Your task to perform on an android device: Is it going to rain tomorrow? Image 0: 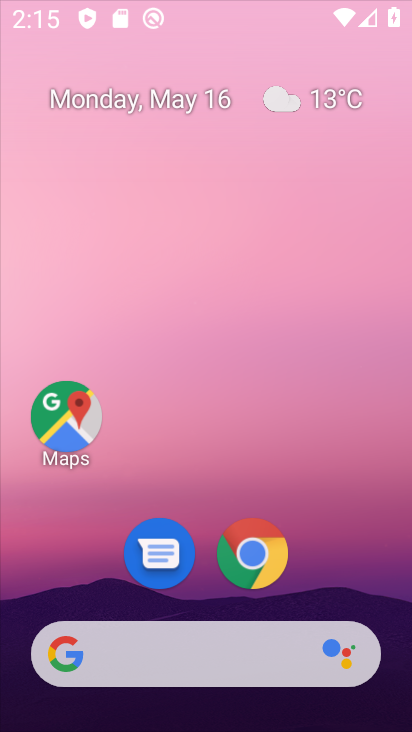
Step 0: drag from (203, 598) to (122, 5)
Your task to perform on an android device: Is it going to rain tomorrow? Image 1: 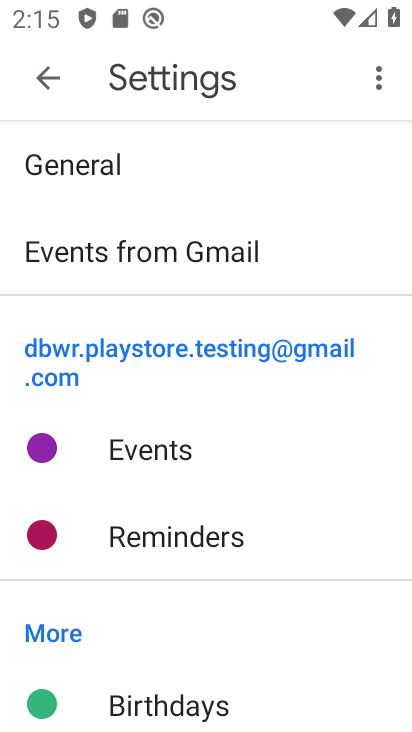
Step 1: press home button
Your task to perform on an android device: Is it going to rain tomorrow? Image 2: 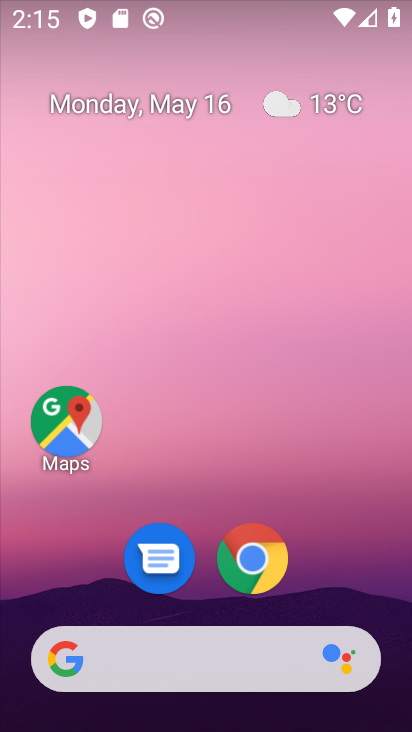
Step 2: click (271, 647)
Your task to perform on an android device: Is it going to rain tomorrow? Image 3: 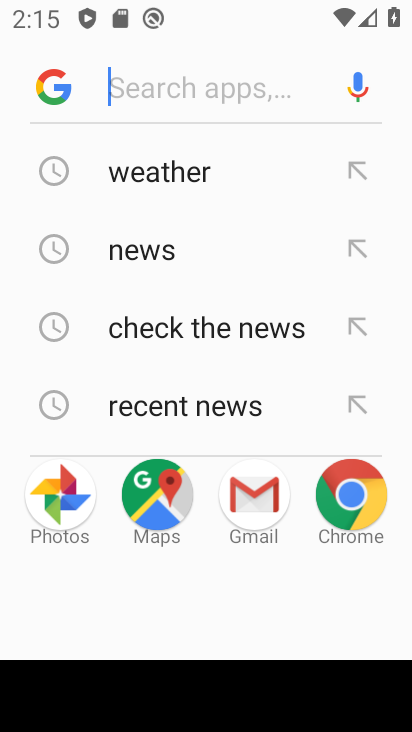
Step 3: click (153, 202)
Your task to perform on an android device: Is it going to rain tomorrow? Image 4: 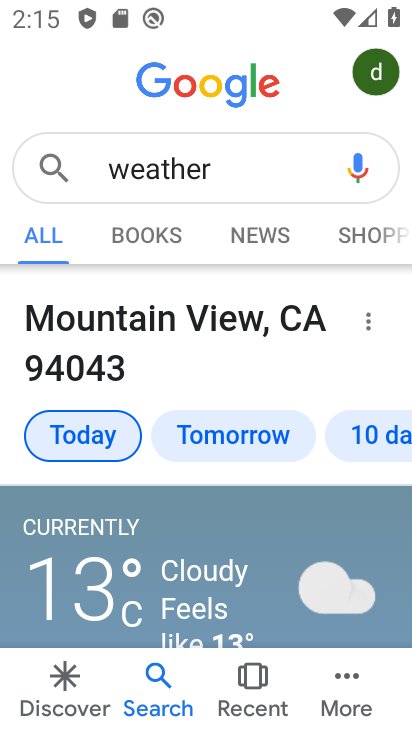
Step 4: click (189, 420)
Your task to perform on an android device: Is it going to rain tomorrow? Image 5: 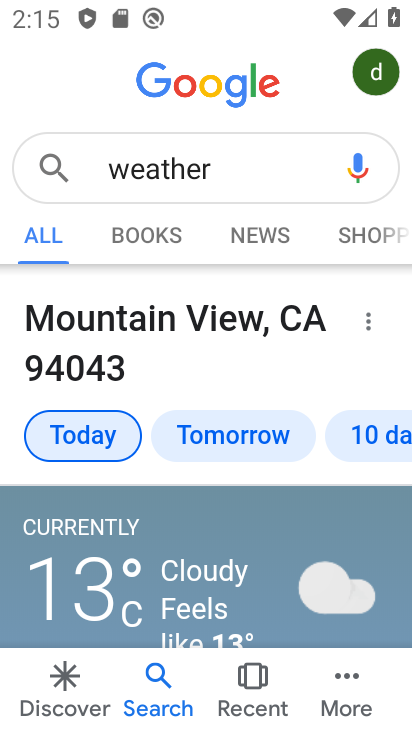
Step 5: click (214, 426)
Your task to perform on an android device: Is it going to rain tomorrow? Image 6: 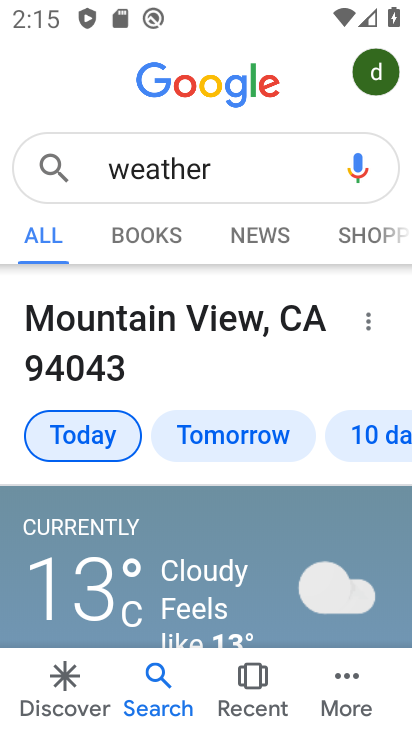
Step 6: click (225, 454)
Your task to perform on an android device: Is it going to rain tomorrow? Image 7: 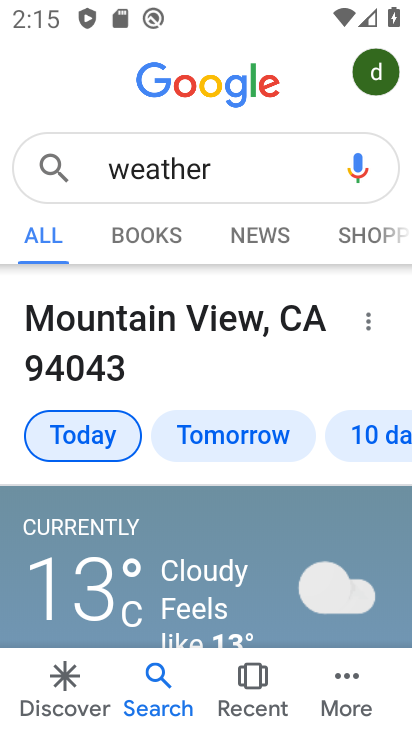
Step 7: task complete